Your task to perform on an android device: turn notification dots off Image 0: 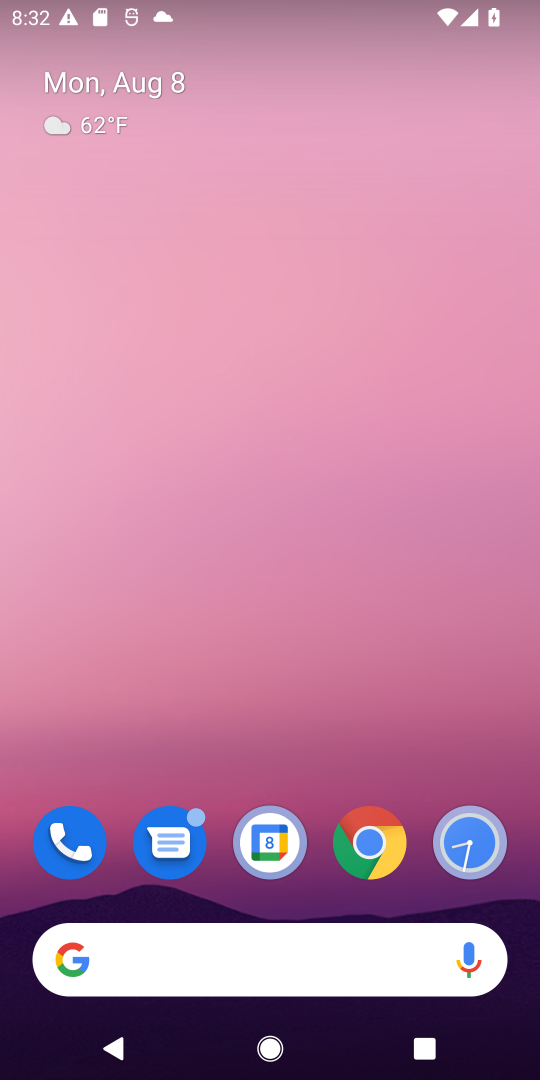
Step 0: drag from (314, 732) to (336, 0)
Your task to perform on an android device: turn notification dots off Image 1: 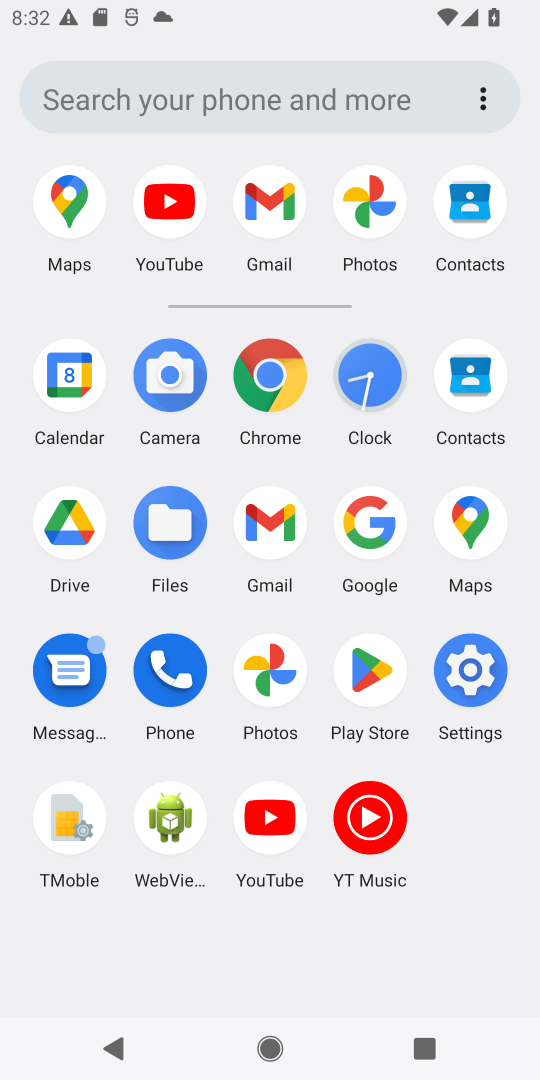
Step 1: click (471, 678)
Your task to perform on an android device: turn notification dots off Image 2: 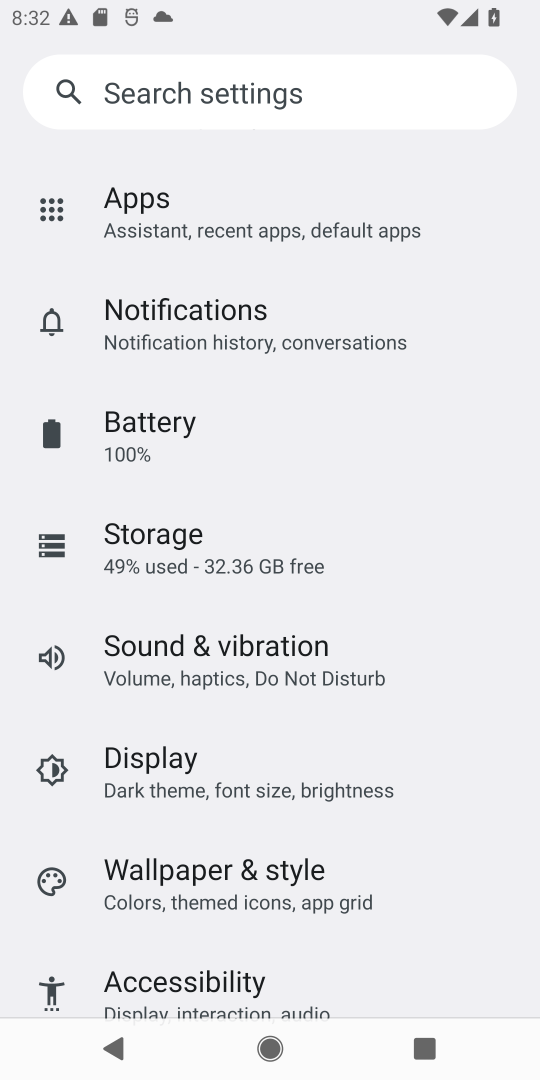
Step 2: click (340, 321)
Your task to perform on an android device: turn notification dots off Image 3: 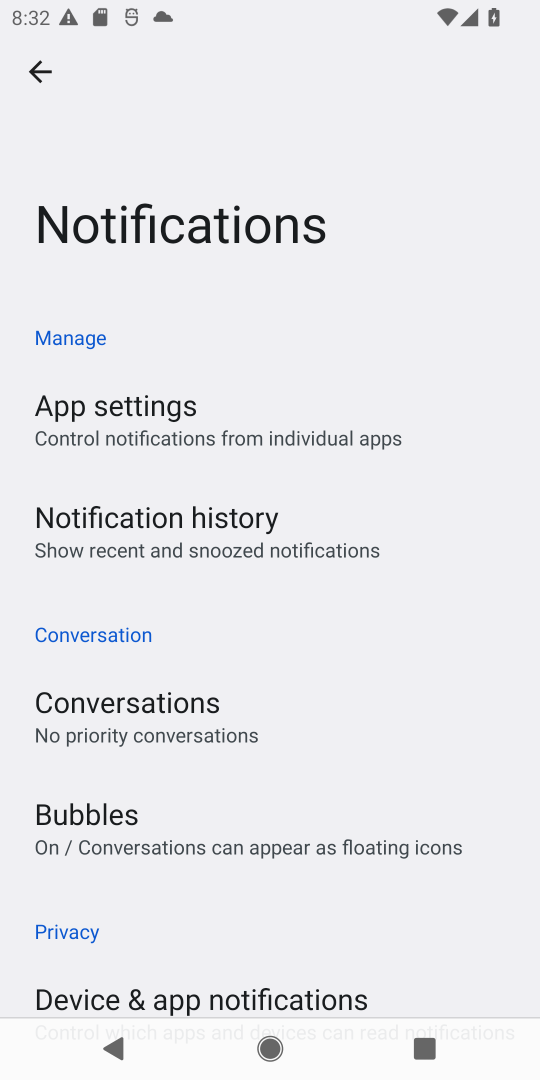
Step 3: drag from (310, 924) to (359, 2)
Your task to perform on an android device: turn notification dots off Image 4: 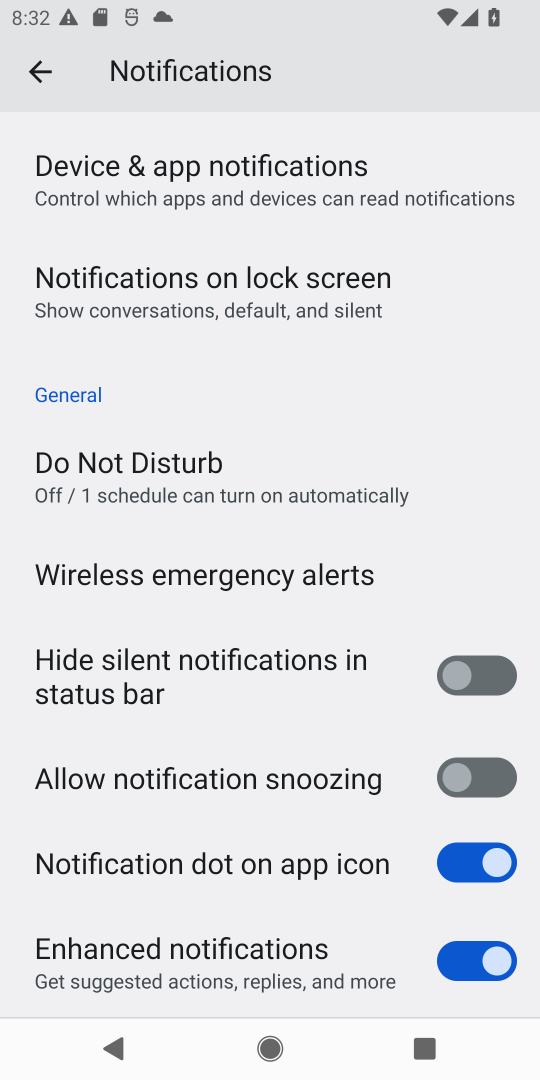
Step 4: click (472, 862)
Your task to perform on an android device: turn notification dots off Image 5: 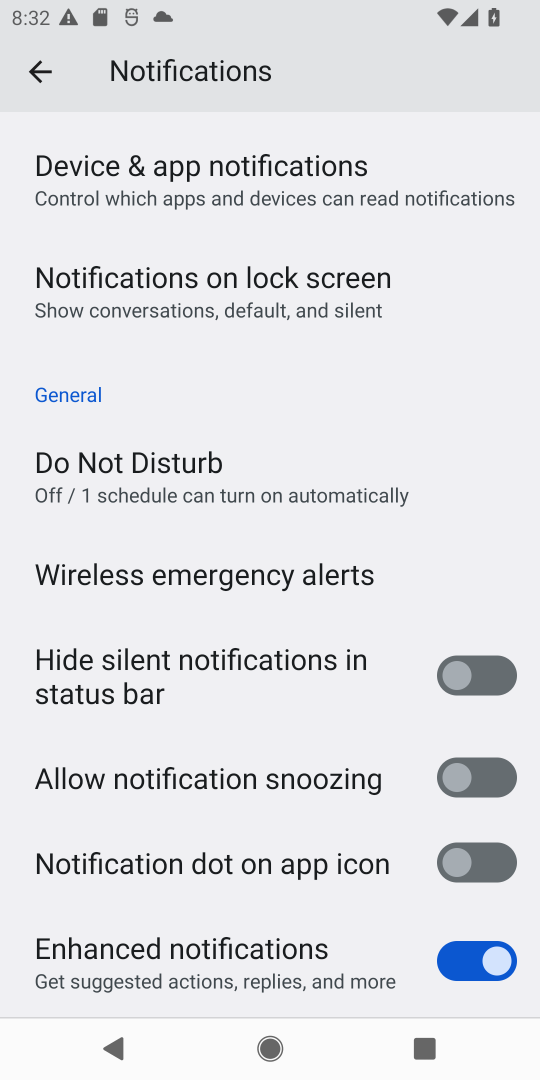
Step 5: task complete